Your task to perform on an android device: Go to wifi settings Image 0: 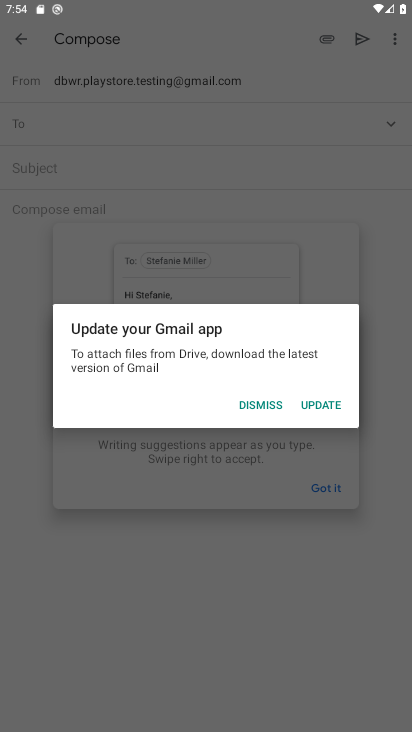
Step 0: press home button
Your task to perform on an android device: Go to wifi settings Image 1: 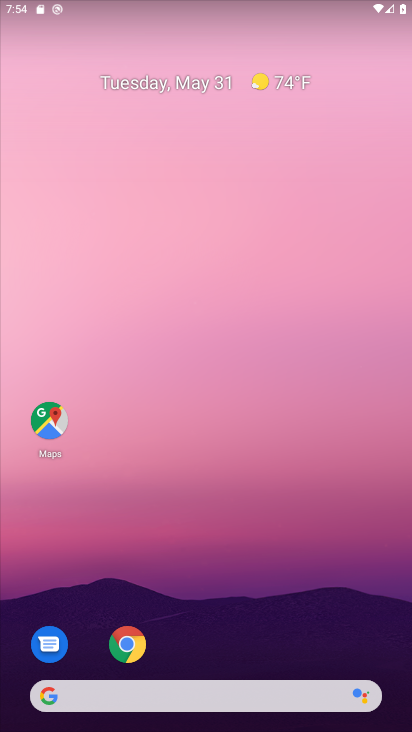
Step 1: drag from (163, 6) to (251, 2)
Your task to perform on an android device: Go to wifi settings Image 2: 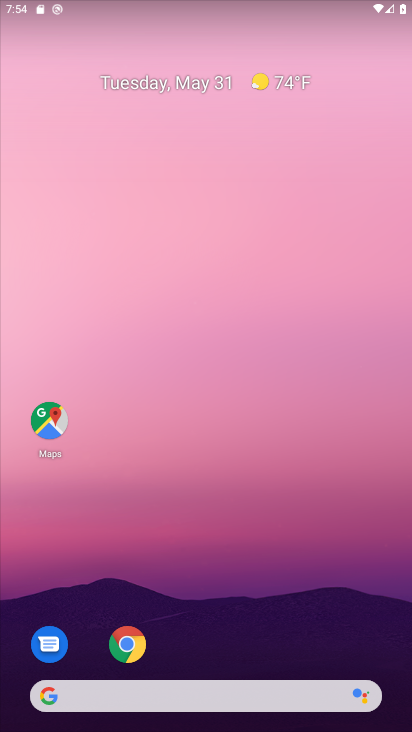
Step 2: drag from (214, 624) to (227, 115)
Your task to perform on an android device: Go to wifi settings Image 3: 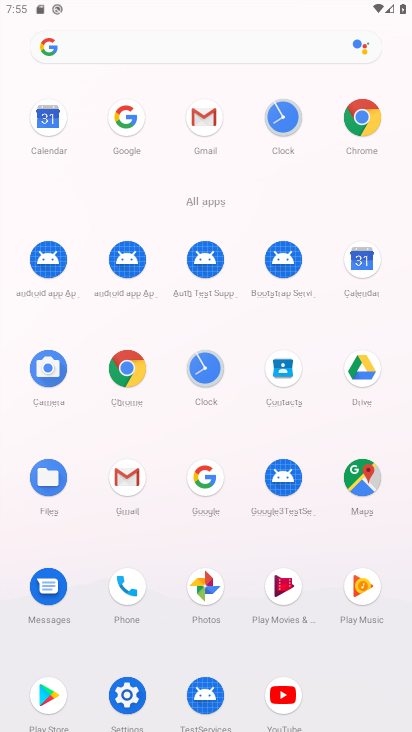
Step 3: click (124, 694)
Your task to perform on an android device: Go to wifi settings Image 4: 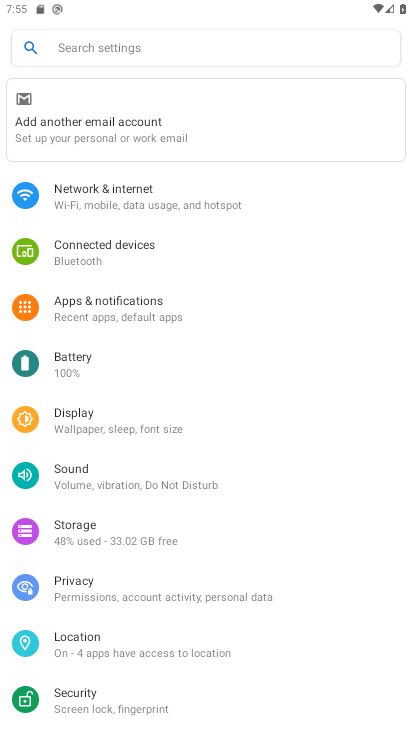
Step 4: click (112, 191)
Your task to perform on an android device: Go to wifi settings Image 5: 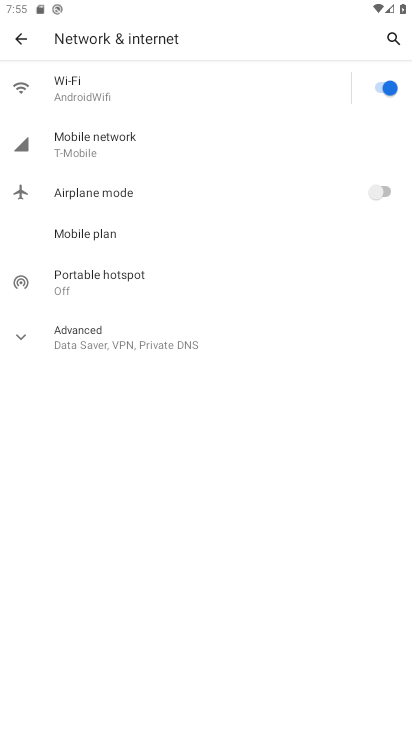
Step 5: click (57, 333)
Your task to perform on an android device: Go to wifi settings Image 6: 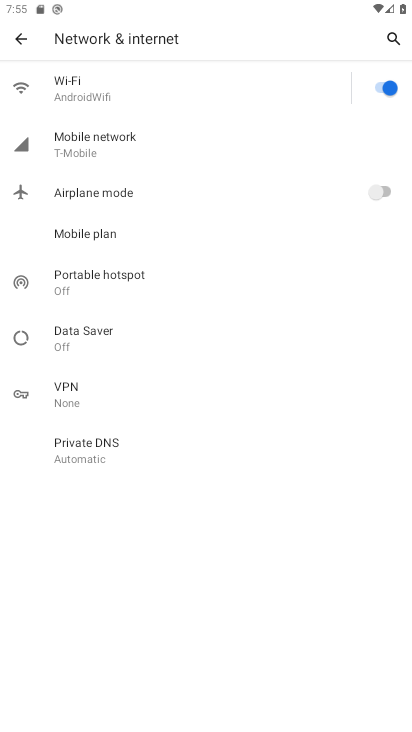
Step 6: task complete